Your task to perform on an android device: Go to Google maps Image 0: 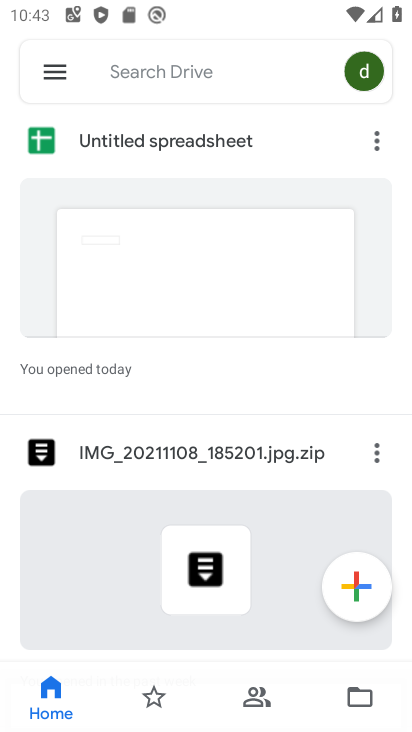
Step 0: press home button
Your task to perform on an android device: Go to Google maps Image 1: 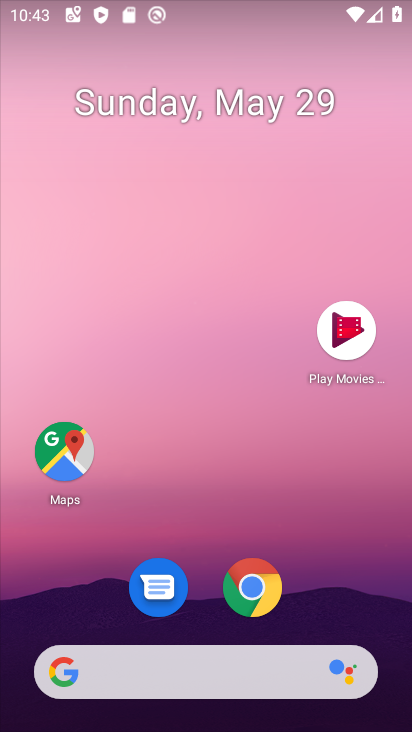
Step 1: click (57, 457)
Your task to perform on an android device: Go to Google maps Image 2: 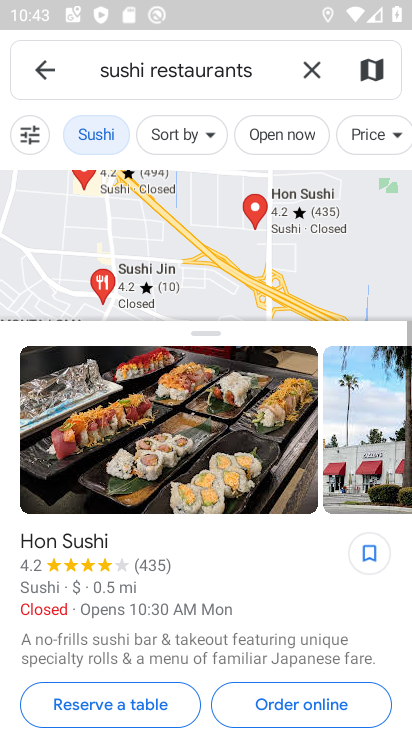
Step 2: click (39, 76)
Your task to perform on an android device: Go to Google maps Image 3: 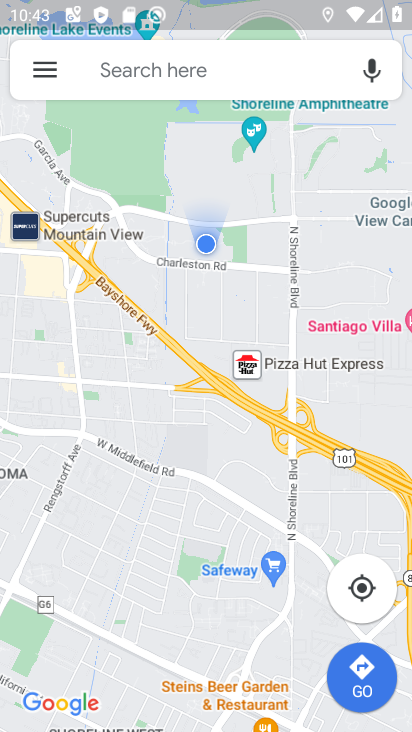
Step 3: task complete